Your task to perform on an android device: Open maps Image 0: 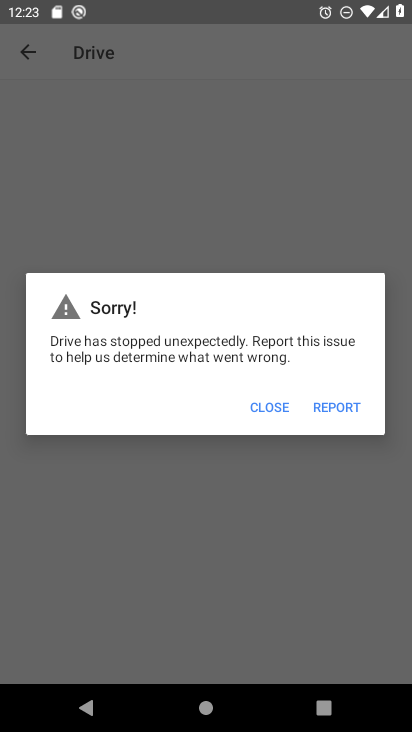
Step 0: press home button
Your task to perform on an android device: Open maps Image 1: 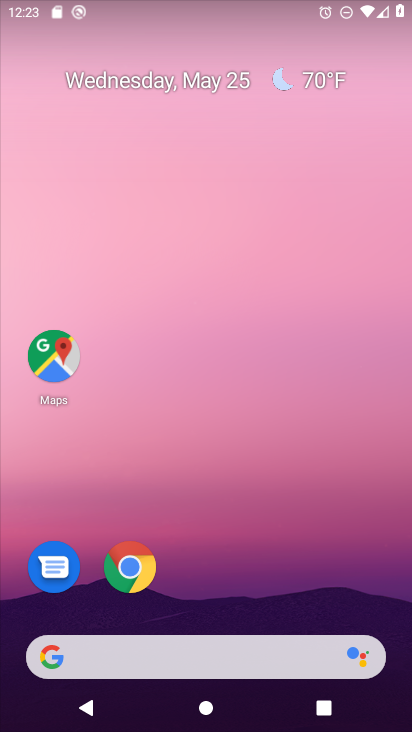
Step 1: click (33, 357)
Your task to perform on an android device: Open maps Image 2: 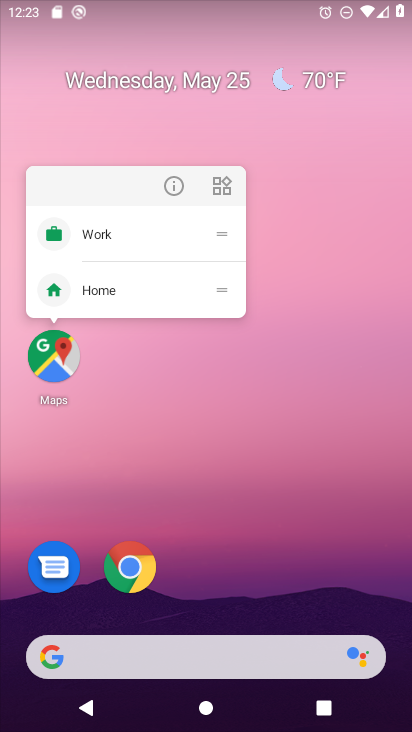
Step 2: click (33, 358)
Your task to perform on an android device: Open maps Image 3: 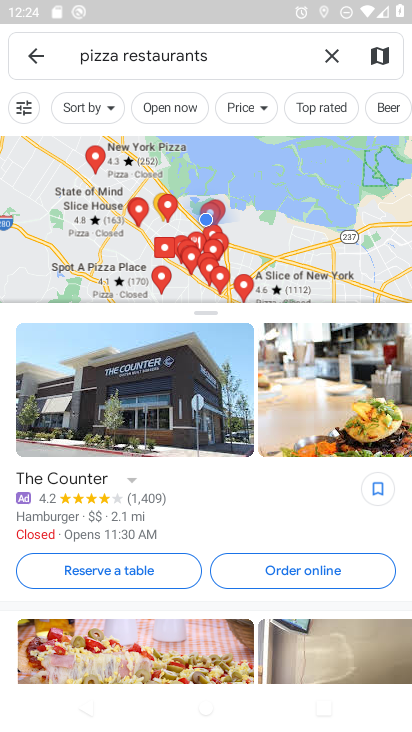
Step 3: click (25, 55)
Your task to perform on an android device: Open maps Image 4: 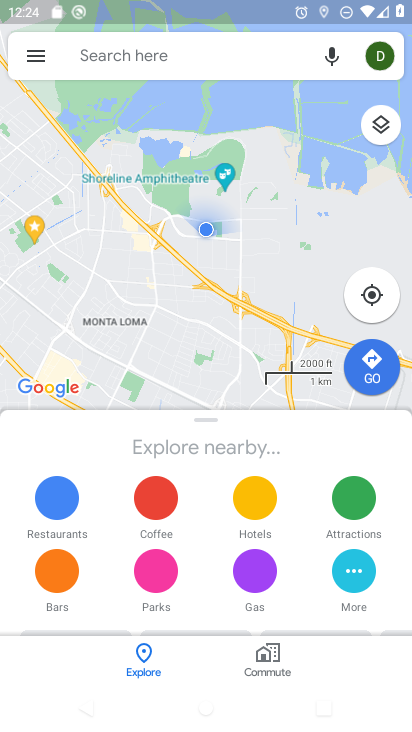
Step 4: task complete